Your task to perform on an android device: Go to Google maps Image 0: 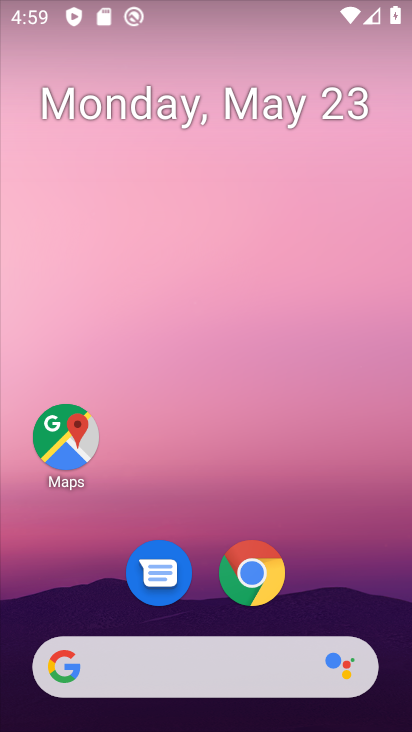
Step 0: click (64, 440)
Your task to perform on an android device: Go to Google maps Image 1: 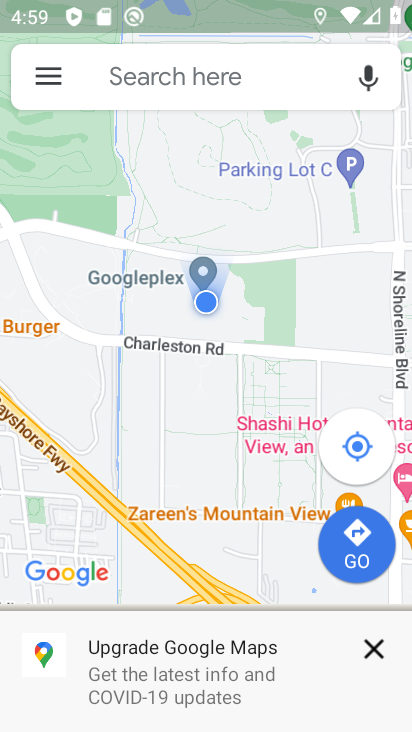
Step 1: task complete